Your task to perform on an android device: Turn on the flashlight Image 0: 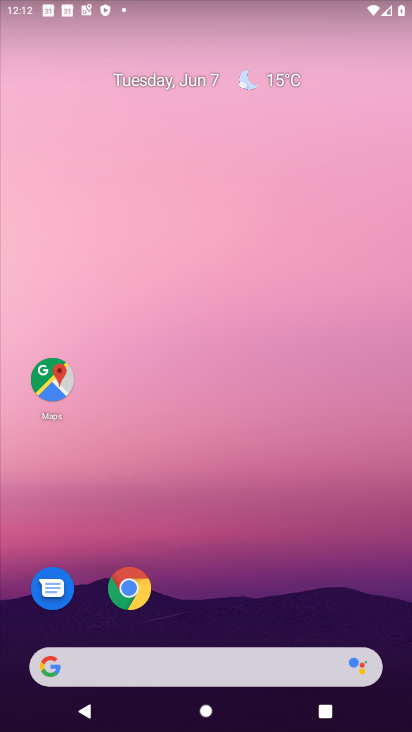
Step 0: drag from (196, 622) to (188, 277)
Your task to perform on an android device: Turn on the flashlight Image 1: 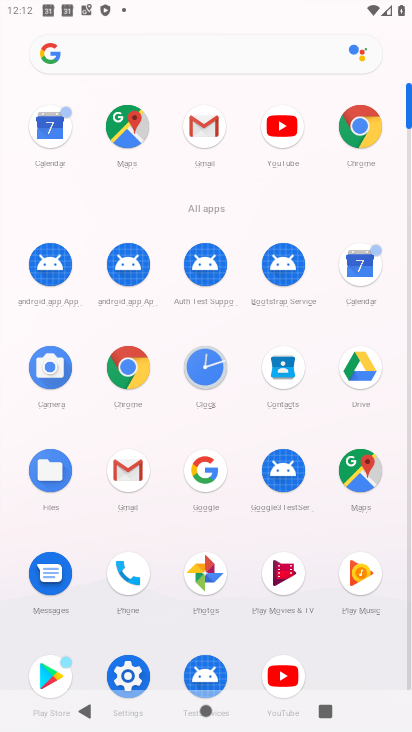
Step 1: click (119, 665)
Your task to perform on an android device: Turn on the flashlight Image 2: 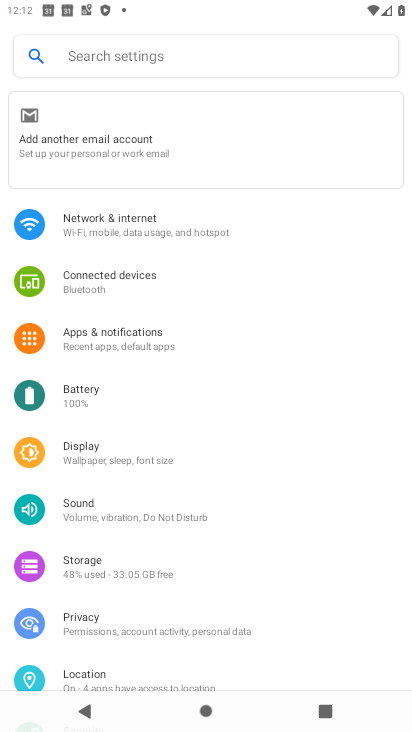
Step 2: task complete